Your task to perform on an android device: What's the latest news in cosmology? Image 0: 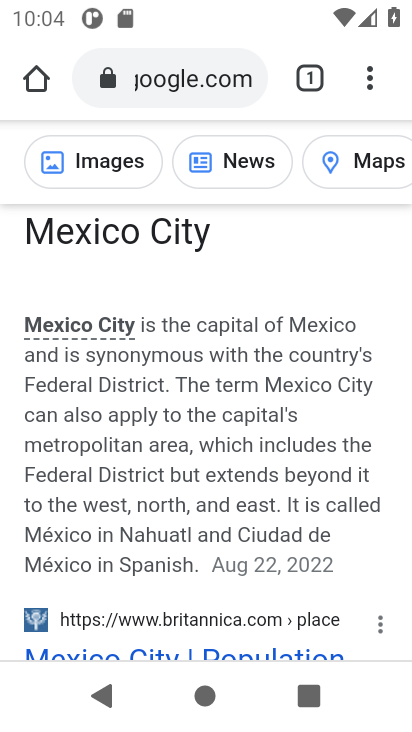
Step 0: click (160, 81)
Your task to perform on an android device: What's the latest news in cosmology? Image 1: 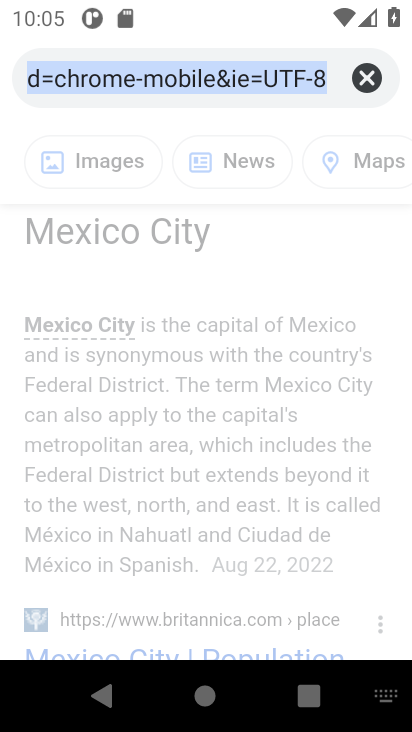
Step 1: type "cosmology latest news"
Your task to perform on an android device: What's the latest news in cosmology? Image 2: 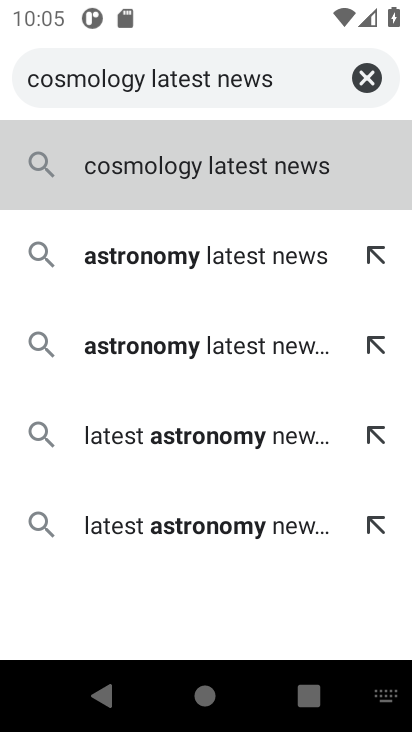
Step 2: click (277, 174)
Your task to perform on an android device: What's the latest news in cosmology? Image 3: 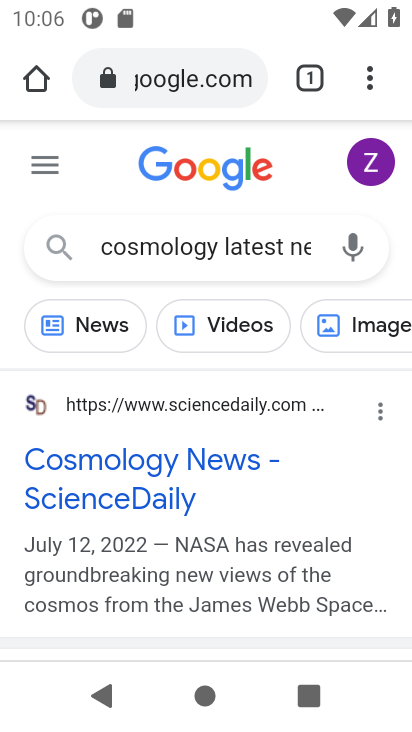
Step 3: drag from (200, 539) to (195, 256)
Your task to perform on an android device: What's the latest news in cosmology? Image 4: 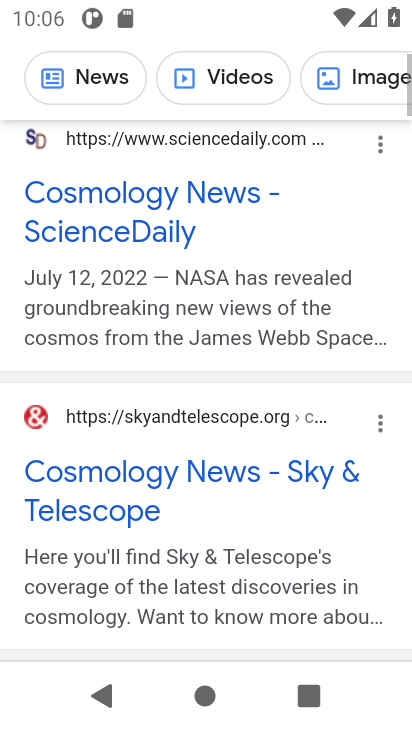
Step 4: click (72, 82)
Your task to perform on an android device: What's the latest news in cosmology? Image 5: 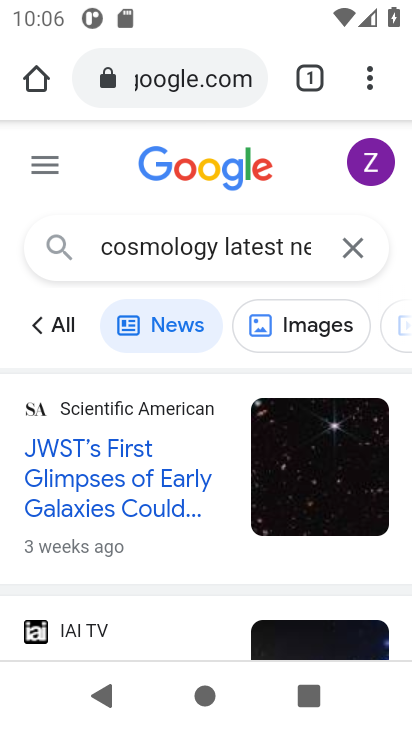
Step 5: task complete